Your task to perform on an android device: manage bookmarks in the chrome app Image 0: 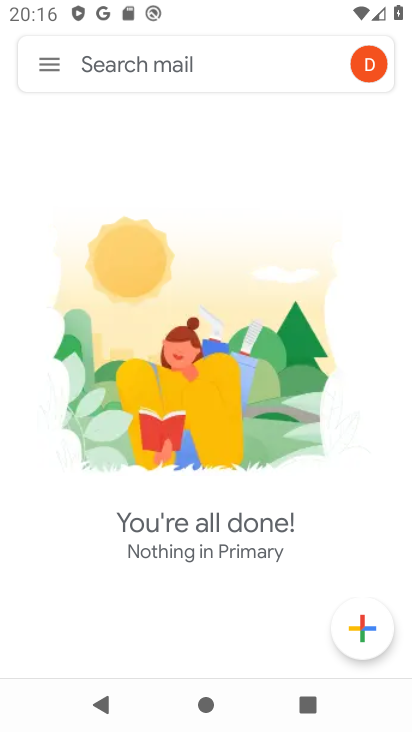
Step 0: press home button
Your task to perform on an android device: manage bookmarks in the chrome app Image 1: 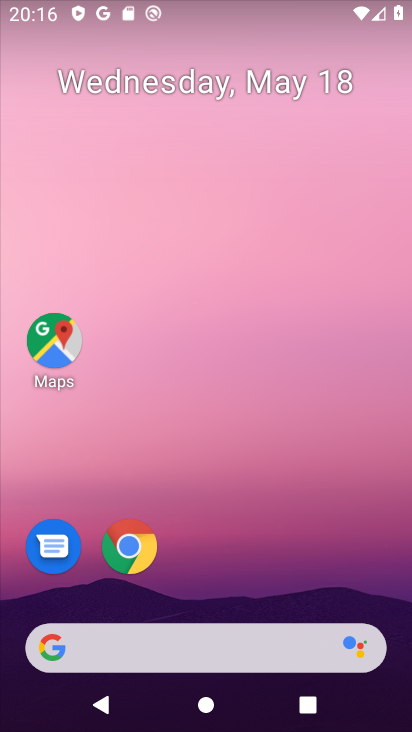
Step 1: drag from (244, 578) to (202, 70)
Your task to perform on an android device: manage bookmarks in the chrome app Image 2: 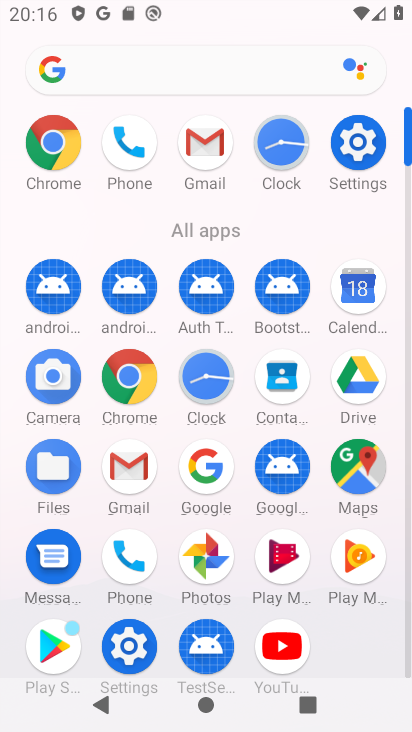
Step 2: click (54, 151)
Your task to perform on an android device: manage bookmarks in the chrome app Image 3: 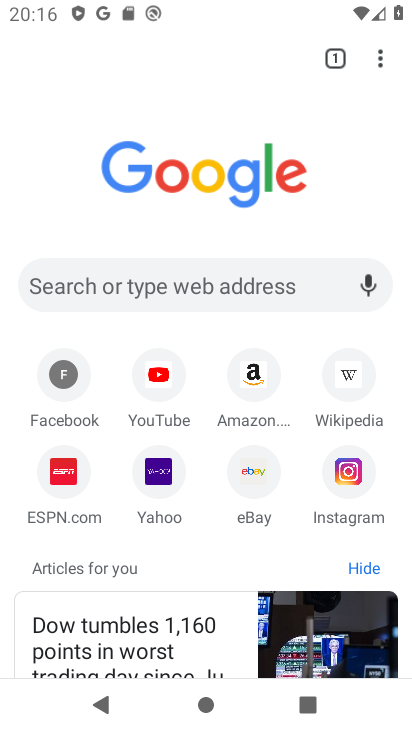
Step 3: click (383, 68)
Your task to perform on an android device: manage bookmarks in the chrome app Image 4: 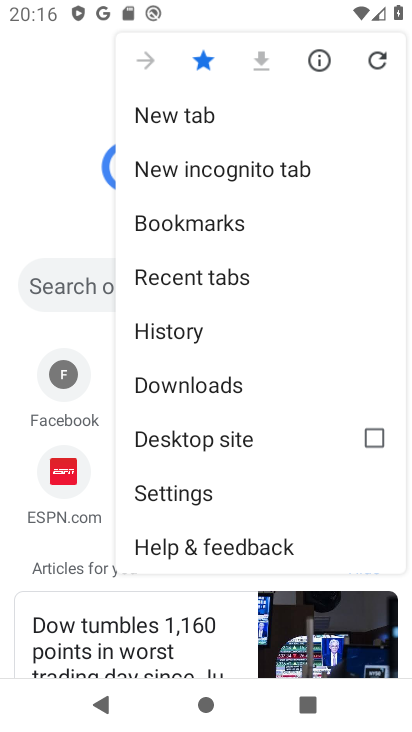
Step 4: click (261, 491)
Your task to perform on an android device: manage bookmarks in the chrome app Image 5: 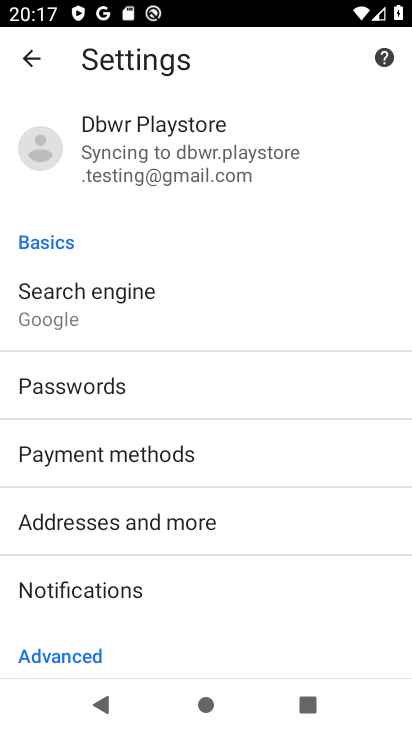
Step 5: click (21, 69)
Your task to perform on an android device: manage bookmarks in the chrome app Image 6: 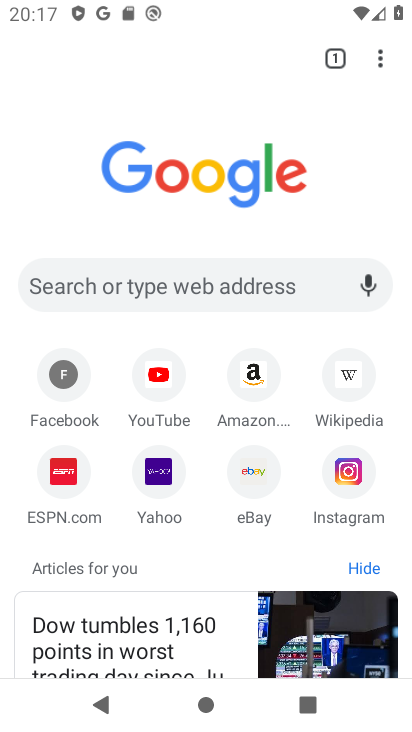
Step 6: click (393, 63)
Your task to perform on an android device: manage bookmarks in the chrome app Image 7: 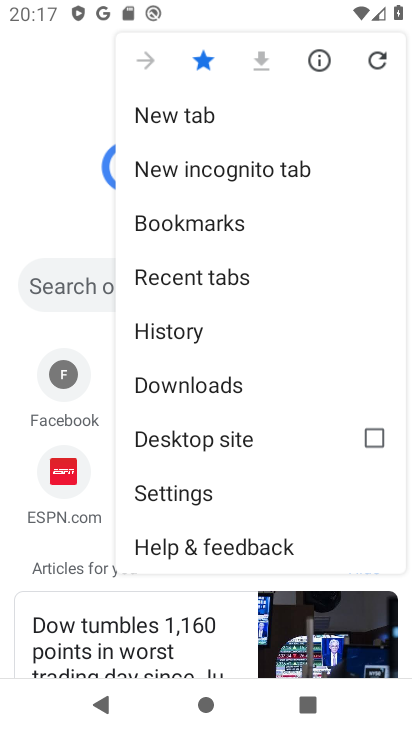
Step 7: click (240, 224)
Your task to perform on an android device: manage bookmarks in the chrome app Image 8: 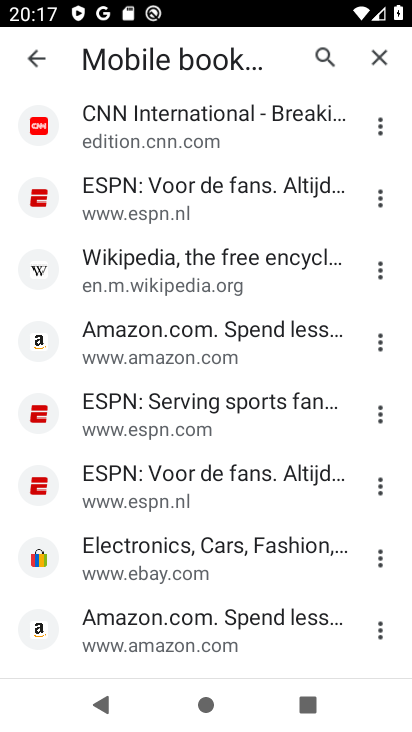
Step 8: click (240, 224)
Your task to perform on an android device: manage bookmarks in the chrome app Image 9: 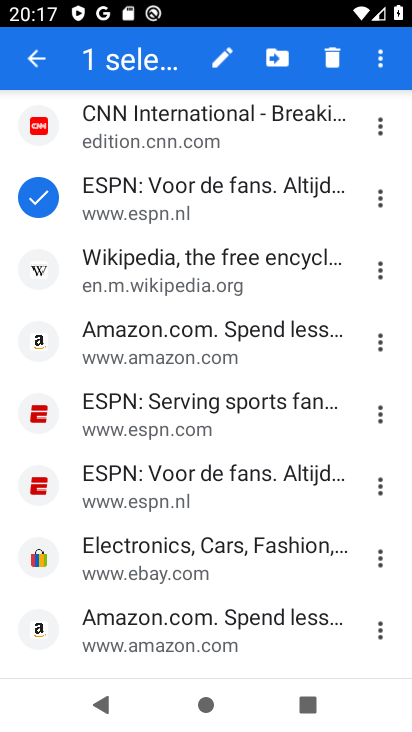
Step 9: click (287, 68)
Your task to perform on an android device: manage bookmarks in the chrome app Image 10: 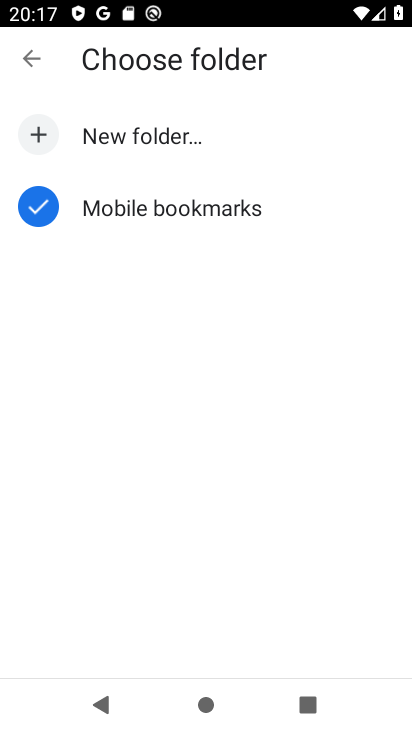
Step 10: click (221, 128)
Your task to perform on an android device: manage bookmarks in the chrome app Image 11: 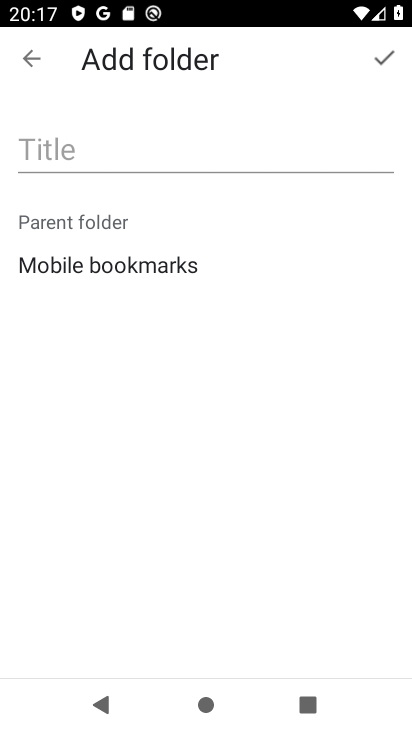
Step 11: click (224, 142)
Your task to perform on an android device: manage bookmarks in the chrome app Image 12: 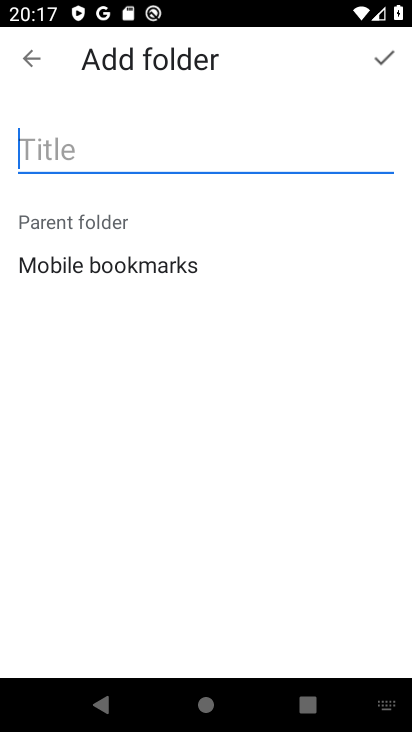
Step 12: type "bkdsbk"
Your task to perform on an android device: manage bookmarks in the chrome app Image 13: 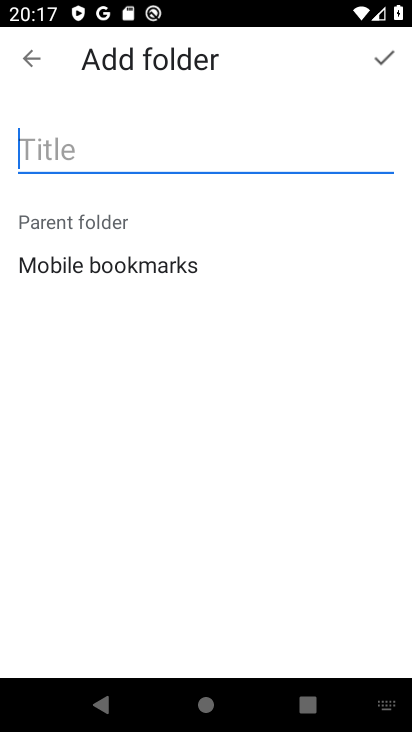
Step 13: click (377, 569)
Your task to perform on an android device: manage bookmarks in the chrome app Image 14: 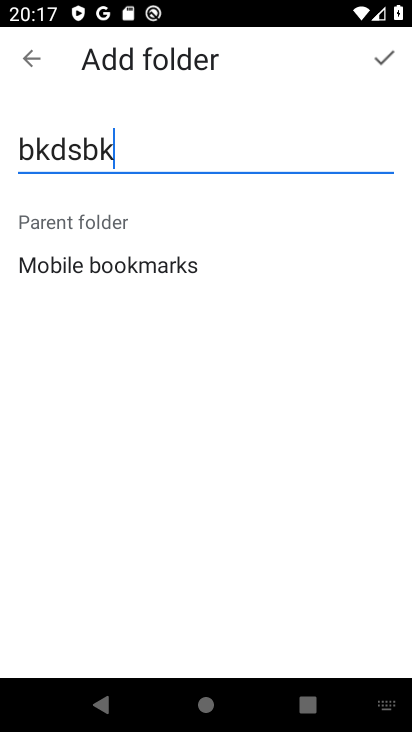
Step 14: click (389, 45)
Your task to perform on an android device: manage bookmarks in the chrome app Image 15: 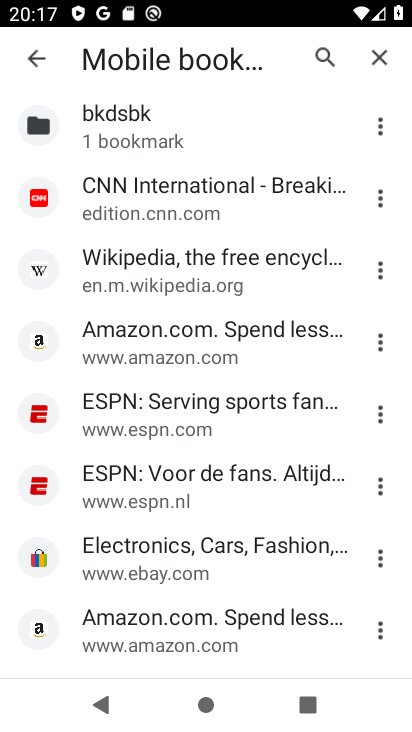
Step 15: task complete